Your task to perform on an android device: Clear the shopping cart on target.com. Add asus rog to the cart on target.com, then select checkout. Image 0: 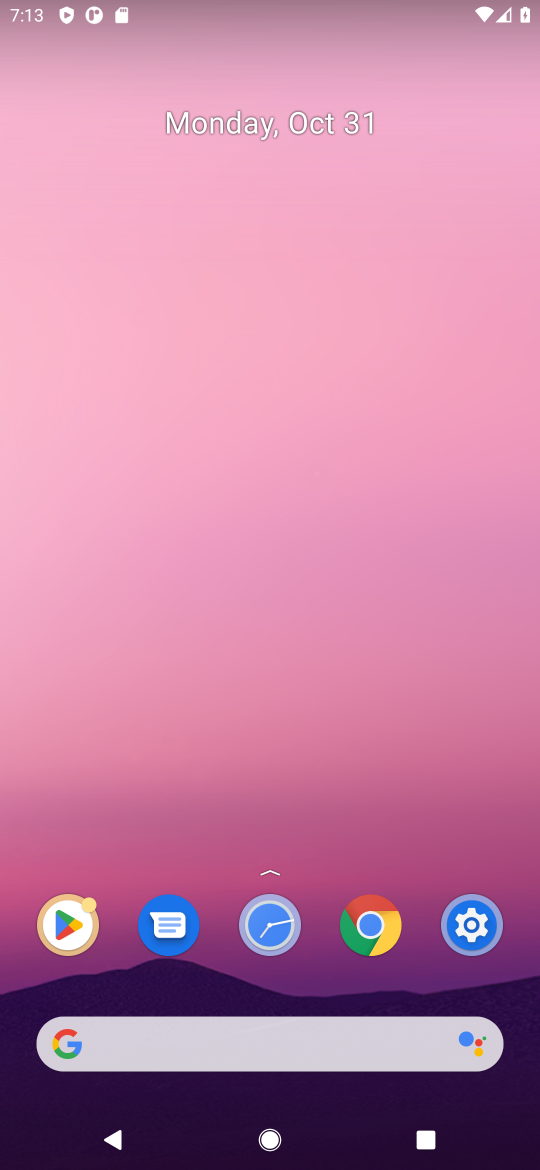
Step 0: click (372, 921)
Your task to perform on an android device: Clear the shopping cart on target.com. Add asus rog to the cart on target.com, then select checkout. Image 1: 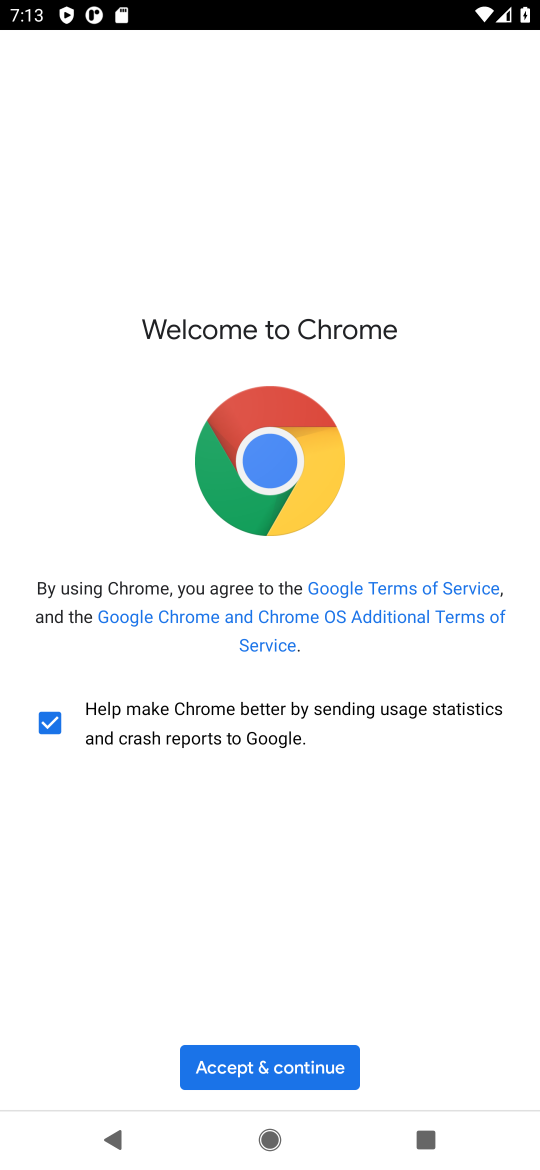
Step 1: click (298, 1056)
Your task to perform on an android device: Clear the shopping cart on target.com. Add asus rog to the cart on target.com, then select checkout. Image 2: 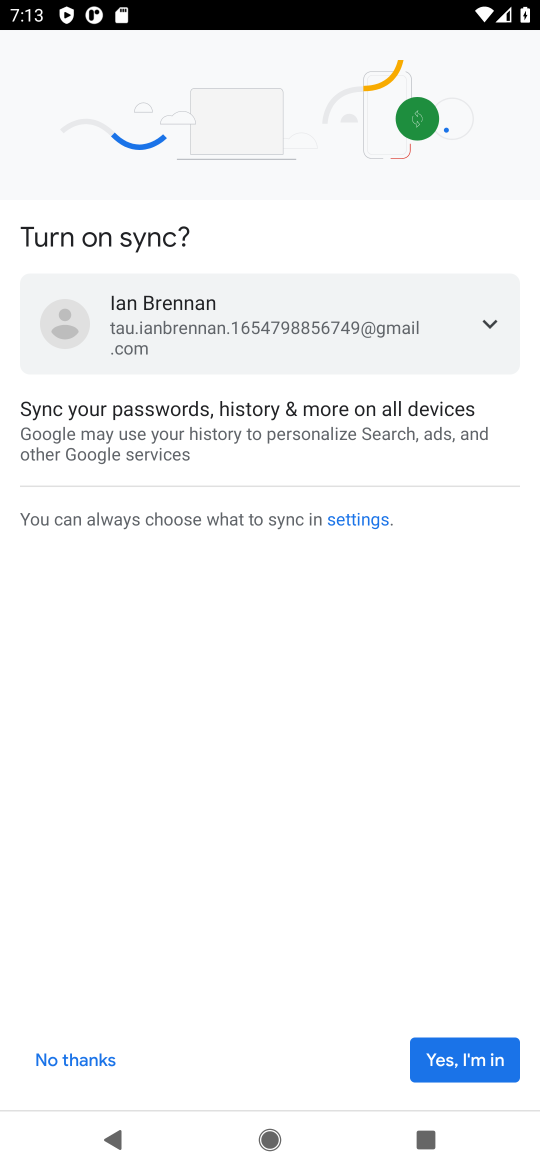
Step 2: click (462, 1062)
Your task to perform on an android device: Clear the shopping cart on target.com. Add asus rog to the cart on target.com, then select checkout. Image 3: 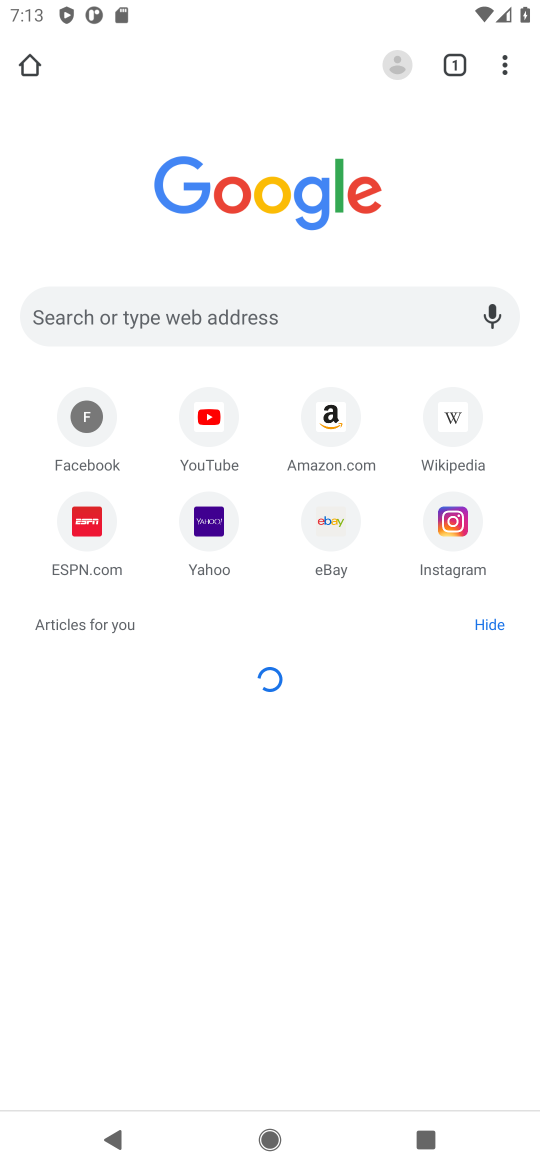
Step 3: click (190, 315)
Your task to perform on an android device: Clear the shopping cart on target.com. Add asus rog to the cart on target.com, then select checkout. Image 4: 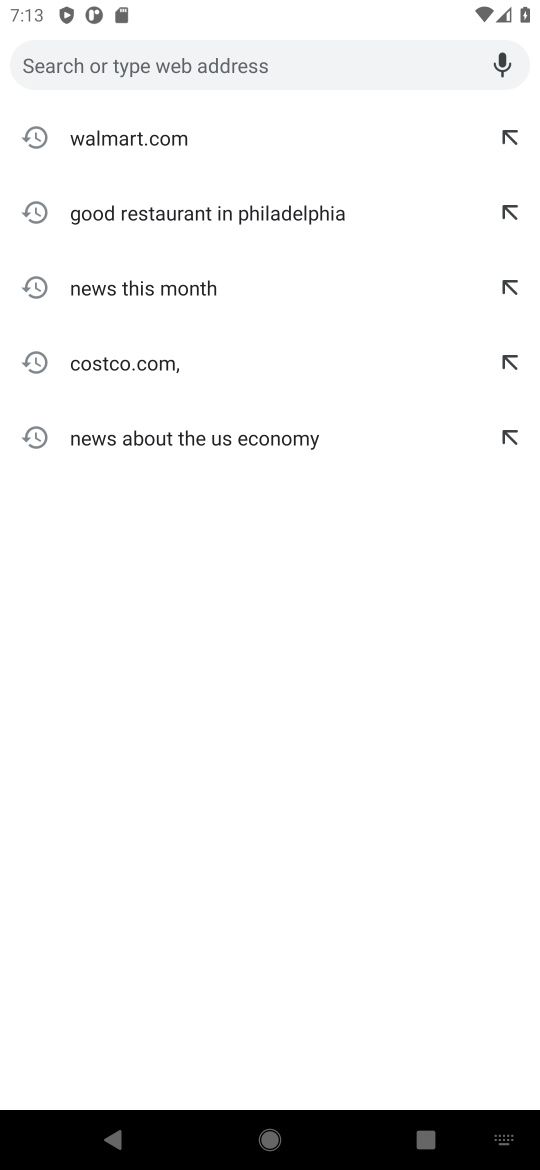
Step 4: type "target.com"
Your task to perform on an android device: Clear the shopping cart on target.com. Add asus rog to the cart on target.com, then select checkout. Image 5: 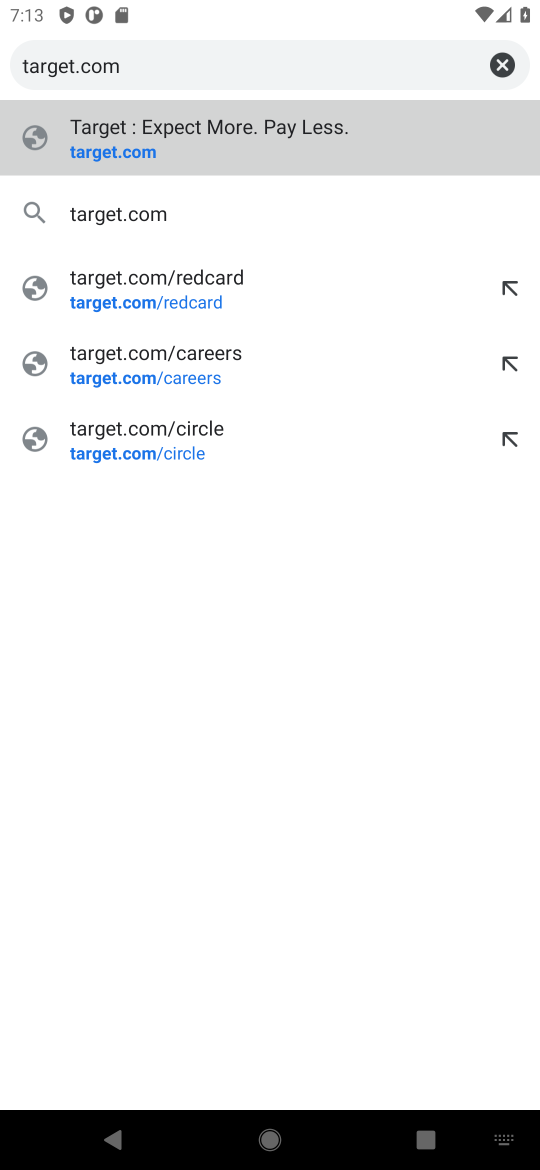
Step 5: click (137, 216)
Your task to perform on an android device: Clear the shopping cart on target.com. Add asus rog to the cart on target.com, then select checkout. Image 6: 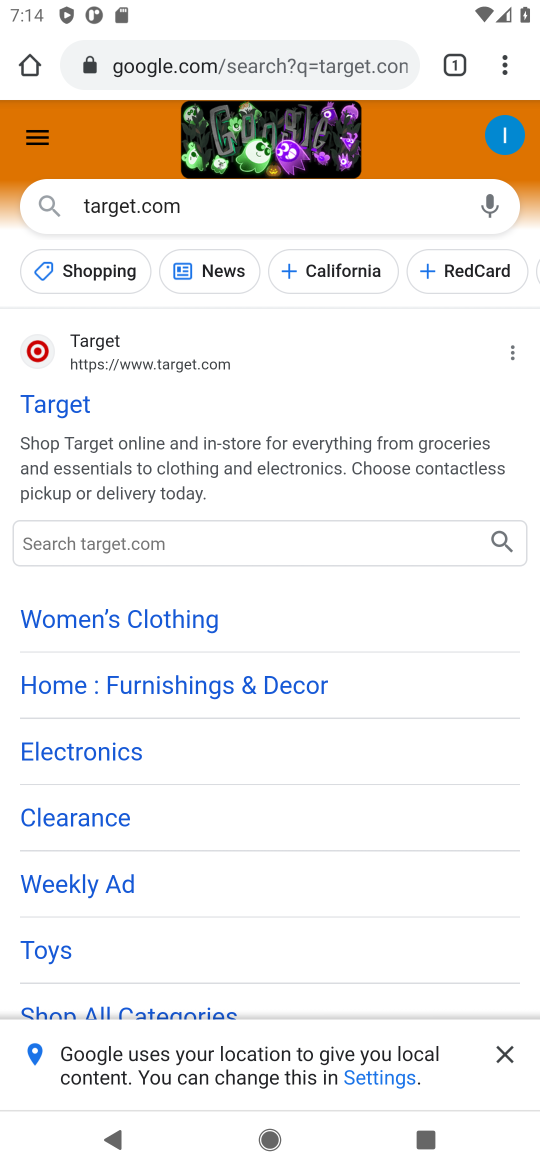
Step 6: click (87, 373)
Your task to perform on an android device: Clear the shopping cart on target.com. Add asus rog to the cart on target.com, then select checkout. Image 7: 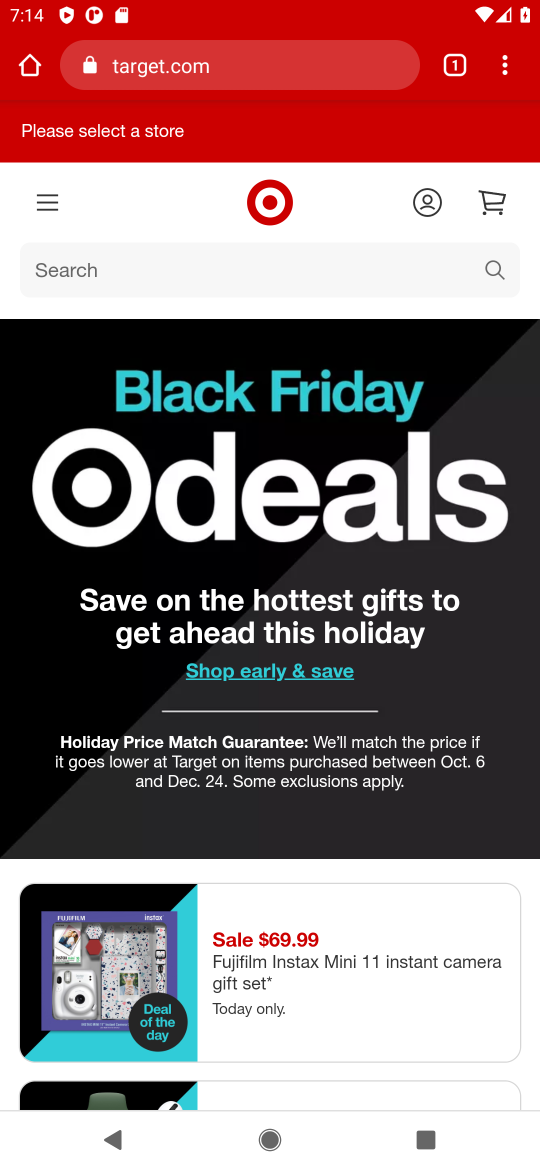
Step 7: click (494, 212)
Your task to perform on an android device: Clear the shopping cart on target.com. Add asus rog to the cart on target.com, then select checkout. Image 8: 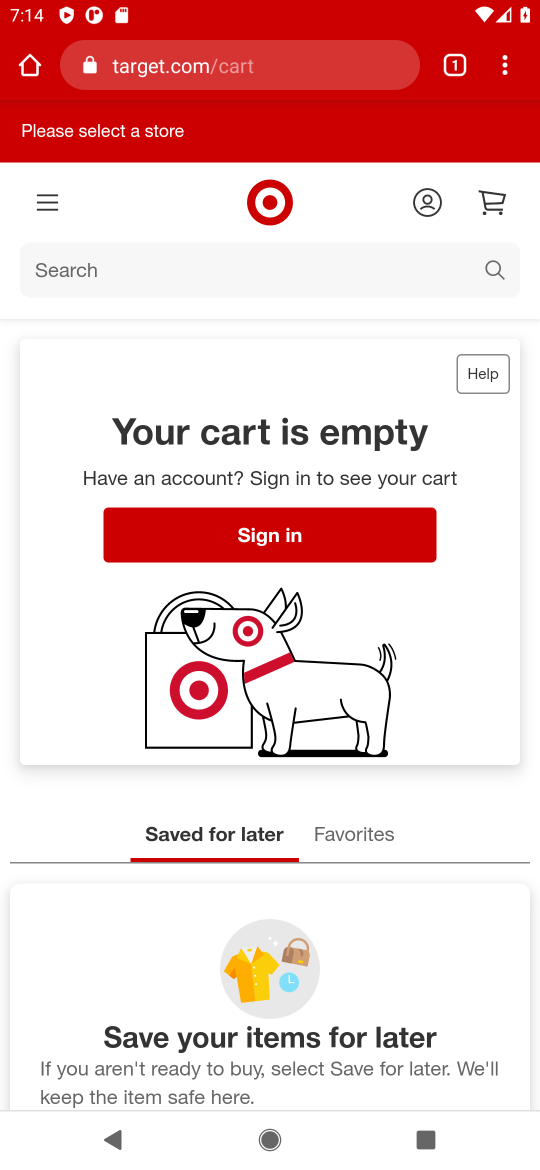
Step 8: click (284, 256)
Your task to perform on an android device: Clear the shopping cart on target.com. Add asus rog to the cart on target.com, then select checkout. Image 9: 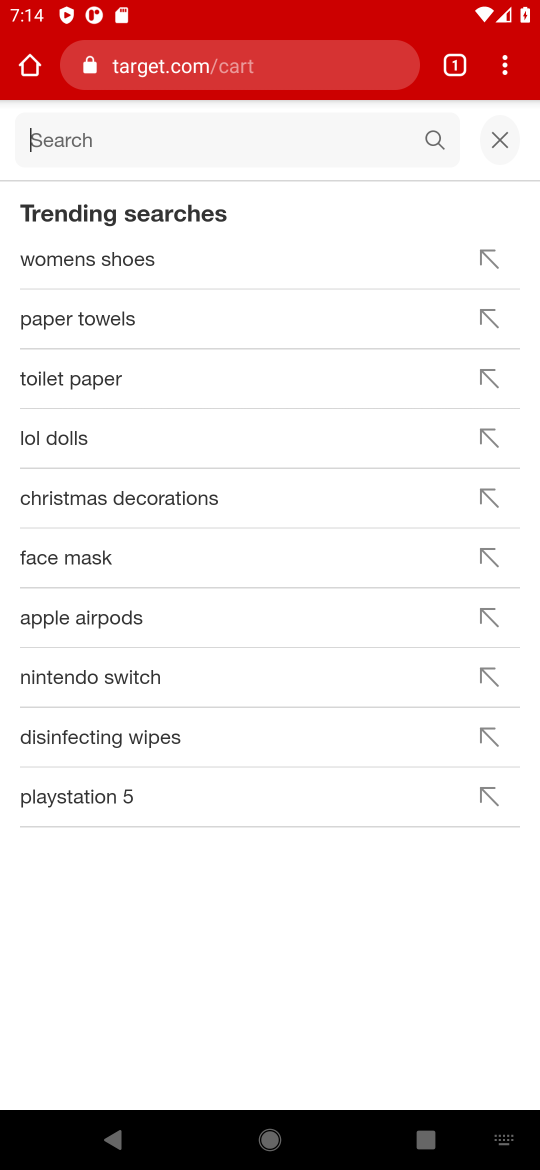
Step 9: type "asus rog"
Your task to perform on an android device: Clear the shopping cart on target.com. Add asus rog to the cart on target.com, then select checkout. Image 10: 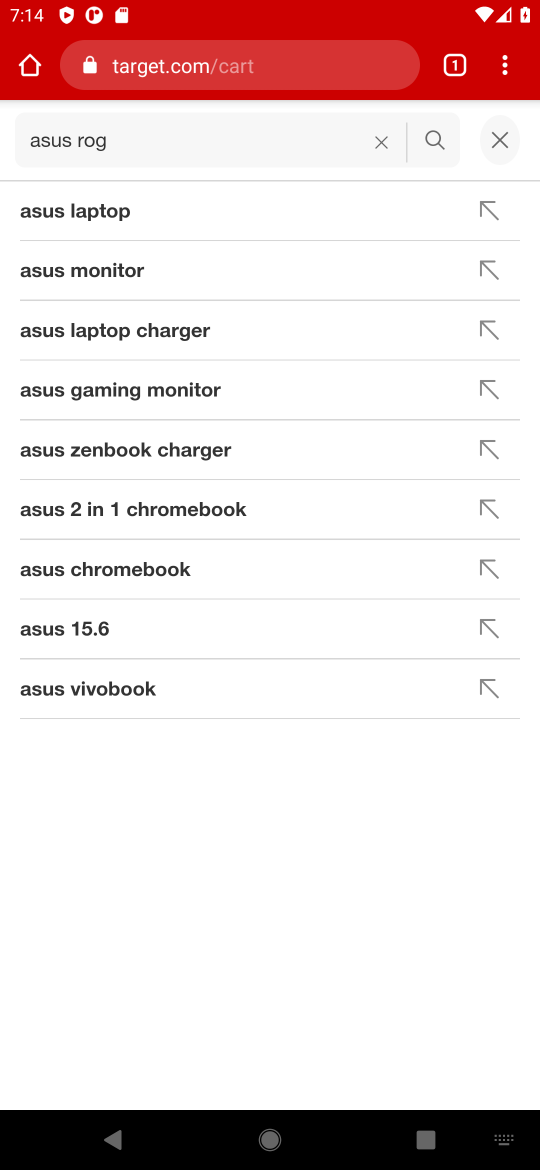
Step 10: click (431, 139)
Your task to perform on an android device: Clear the shopping cart on target.com. Add asus rog to the cart on target.com, then select checkout. Image 11: 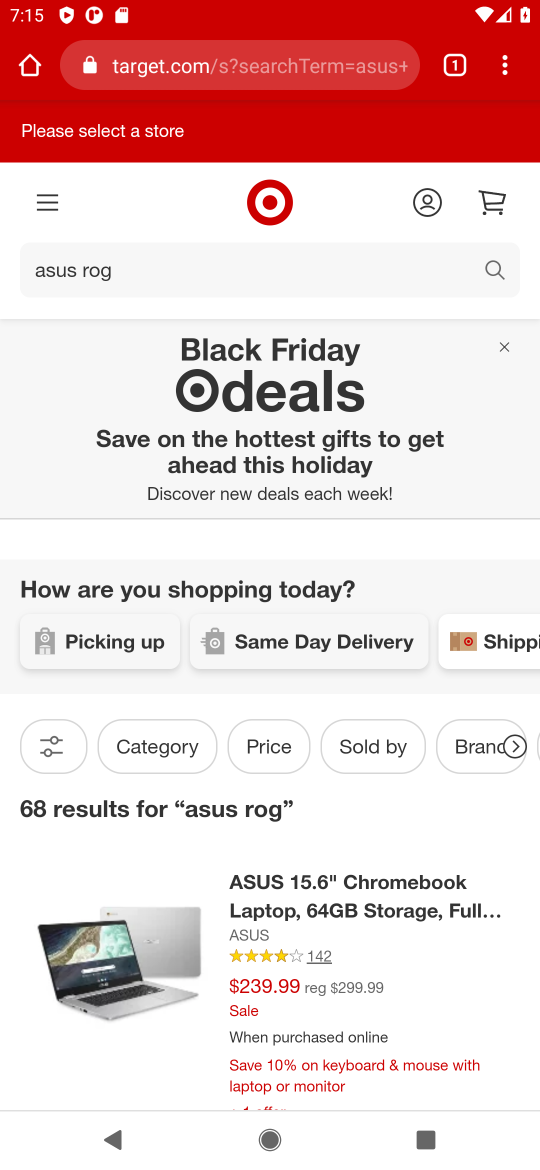
Step 11: drag from (263, 917) to (332, 401)
Your task to perform on an android device: Clear the shopping cart on target.com. Add asus rog to the cart on target.com, then select checkout. Image 12: 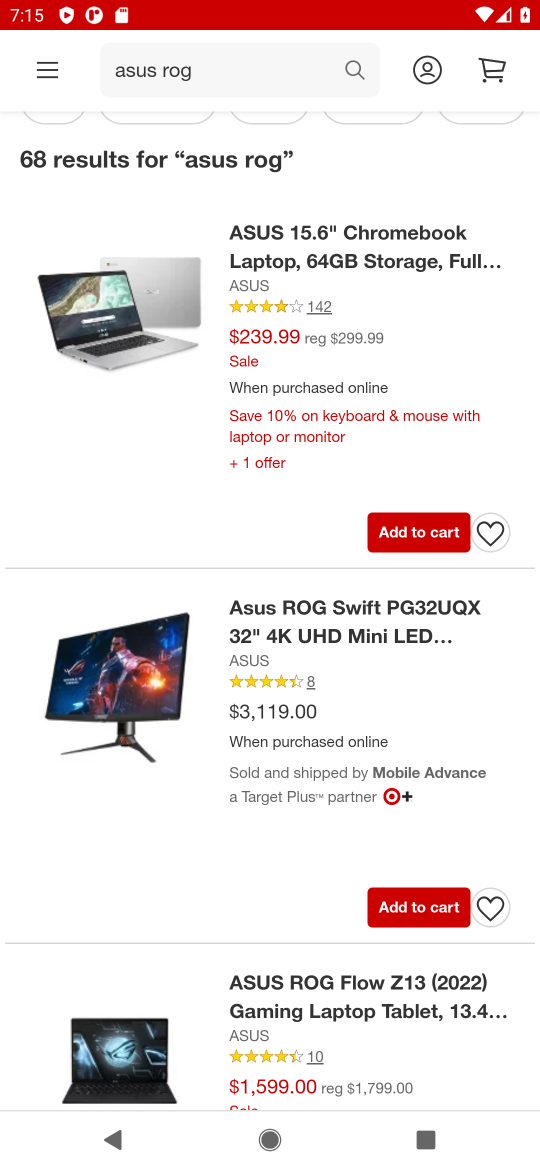
Step 12: click (415, 527)
Your task to perform on an android device: Clear the shopping cart on target.com. Add asus rog to the cart on target.com, then select checkout. Image 13: 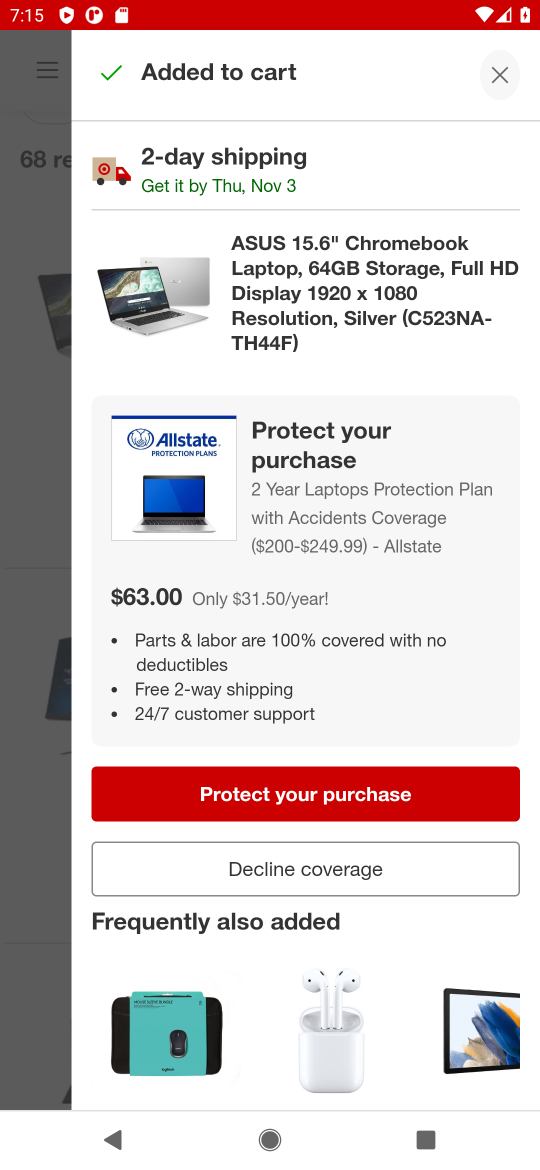
Step 13: click (294, 795)
Your task to perform on an android device: Clear the shopping cart on target.com. Add asus rog to the cart on target.com, then select checkout. Image 14: 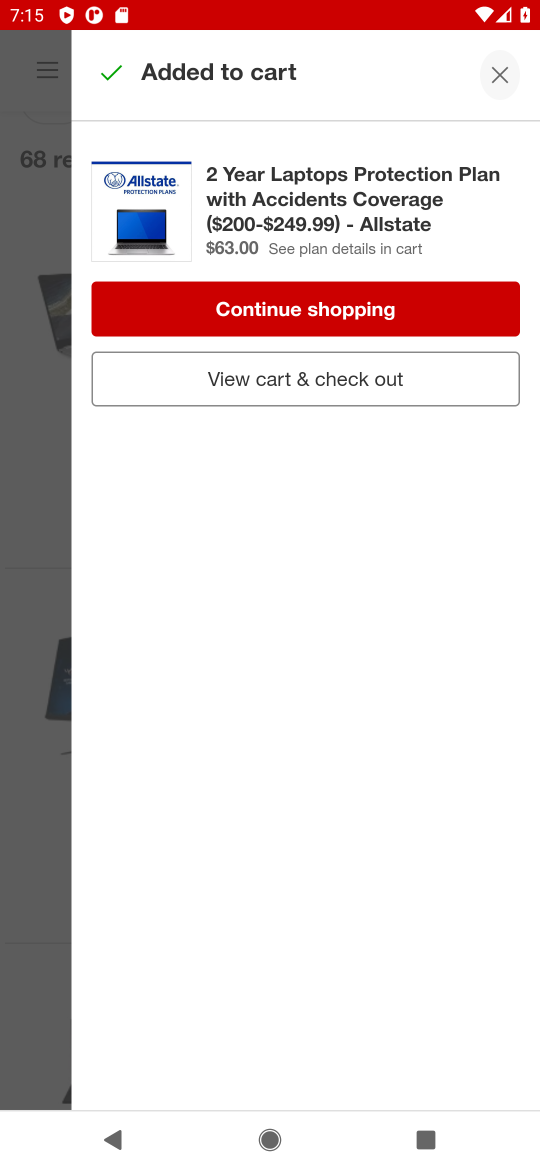
Step 14: click (357, 387)
Your task to perform on an android device: Clear the shopping cart on target.com. Add asus rog to the cart on target.com, then select checkout. Image 15: 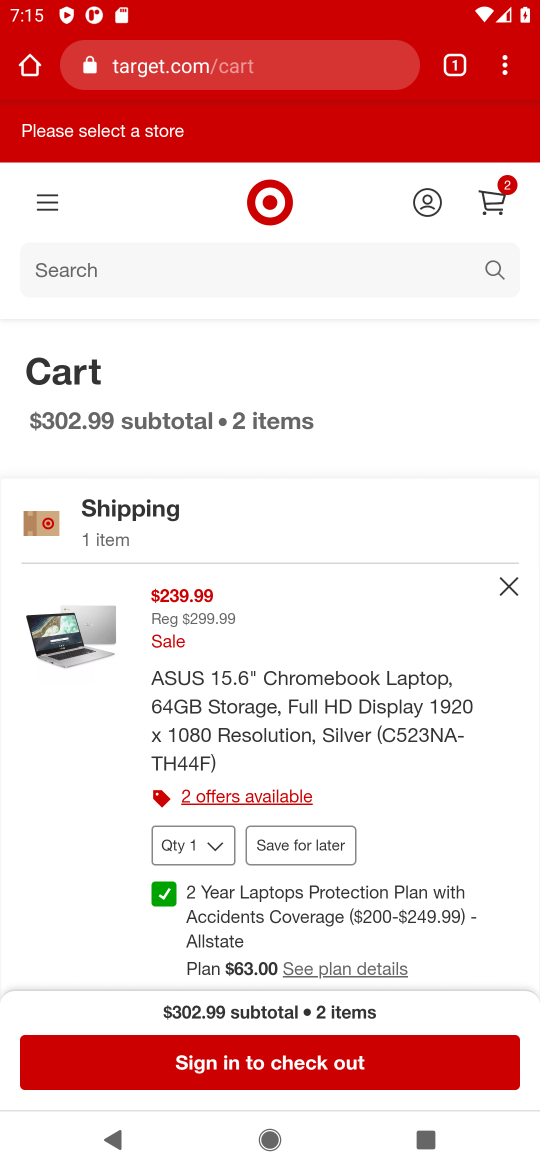
Step 15: task complete